Your task to perform on an android device: check android version Image 0: 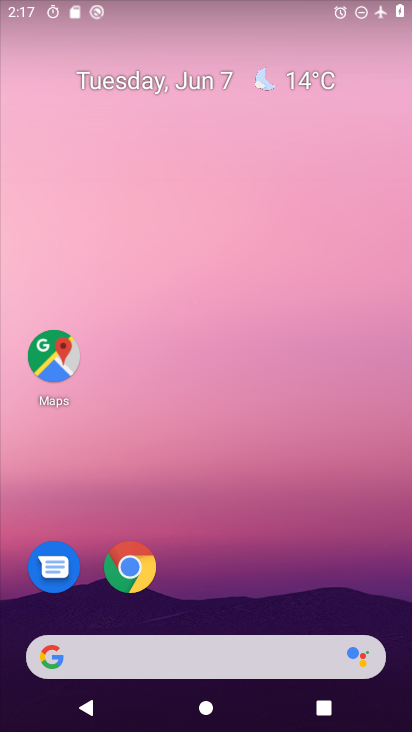
Step 0: drag from (309, 552) to (324, 103)
Your task to perform on an android device: check android version Image 1: 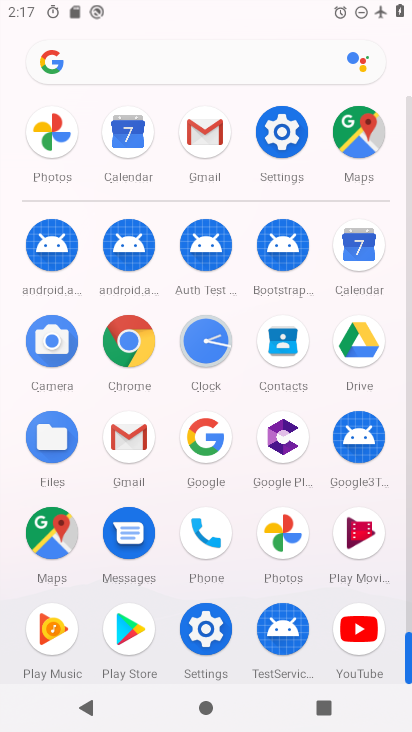
Step 1: click (294, 136)
Your task to perform on an android device: check android version Image 2: 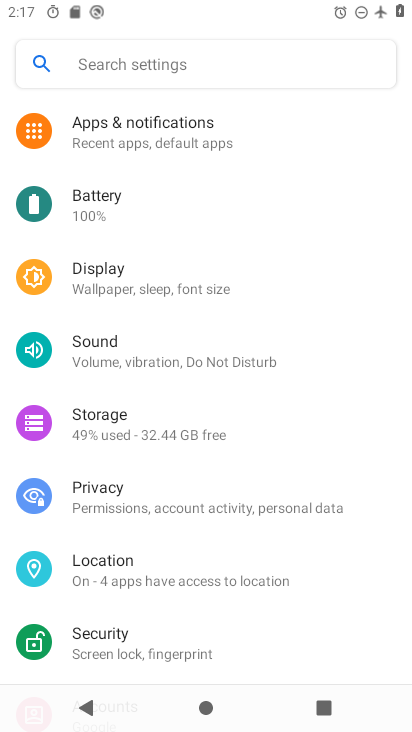
Step 2: drag from (185, 659) to (293, 116)
Your task to perform on an android device: check android version Image 3: 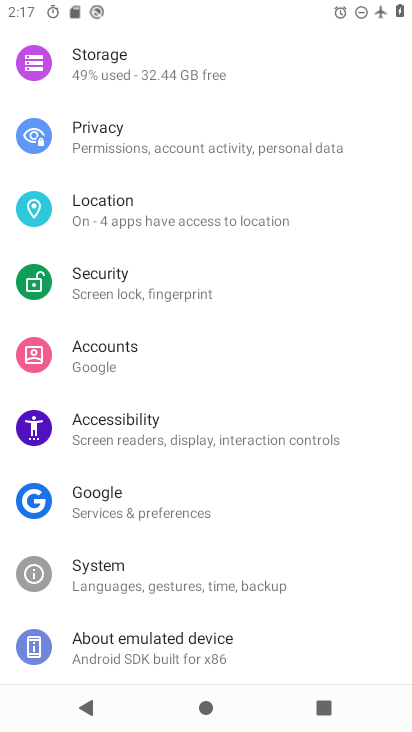
Step 3: click (197, 653)
Your task to perform on an android device: check android version Image 4: 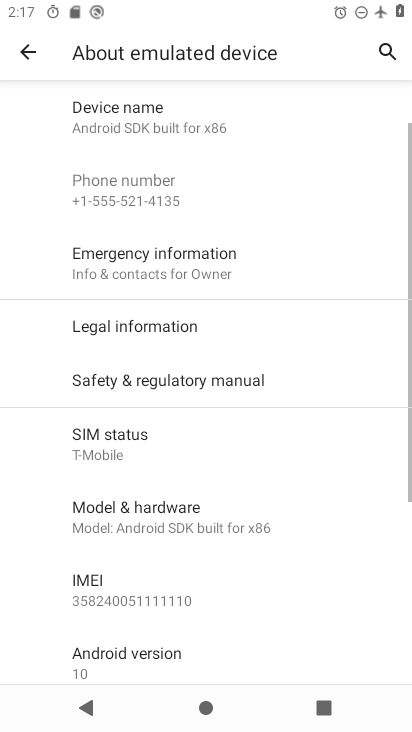
Step 4: drag from (271, 557) to (343, 68)
Your task to perform on an android device: check android version Image 5: 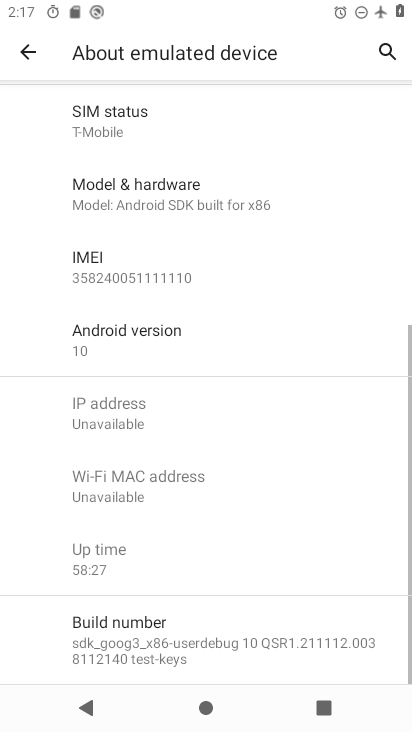
Step 5: click (103, 353)
Your task to perform on an android device: check android version Image 6: 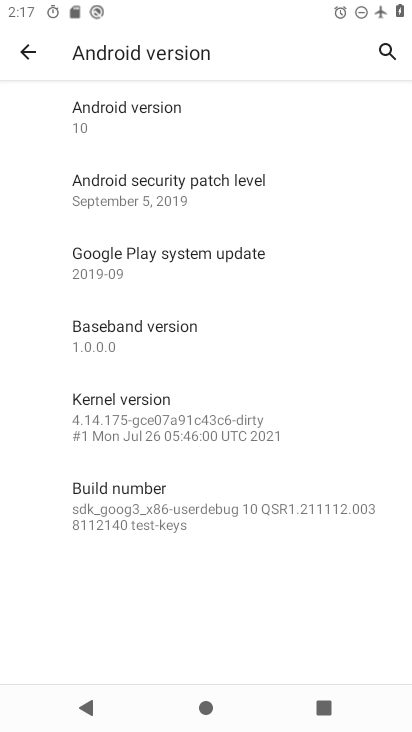
Step 6: task complete